Your task to perform on an android device: Go to Reddit.com Image 0: 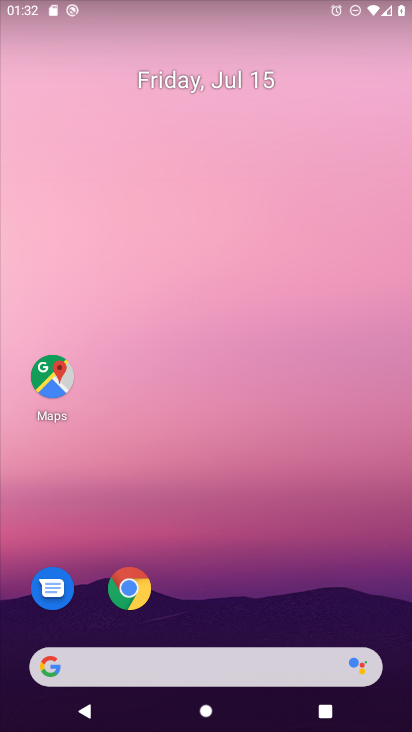
Step 0: click (133, 593)
Your task to perform on an android device: Go to Reddit.com Image 1: 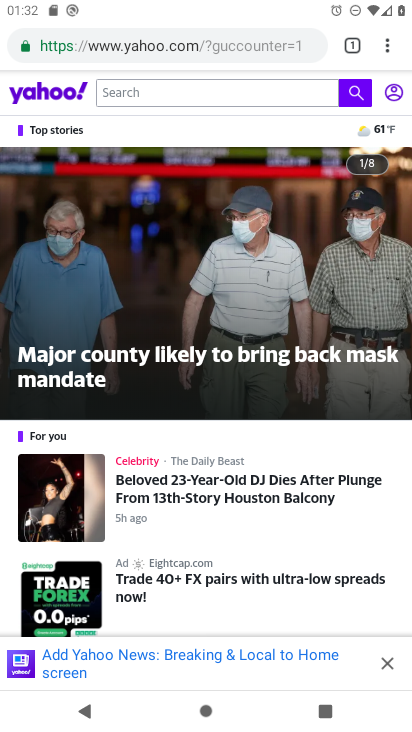
Step 1: click (308, 46)
Your task to perform on an android device: Go to Reddit.com Image 2: 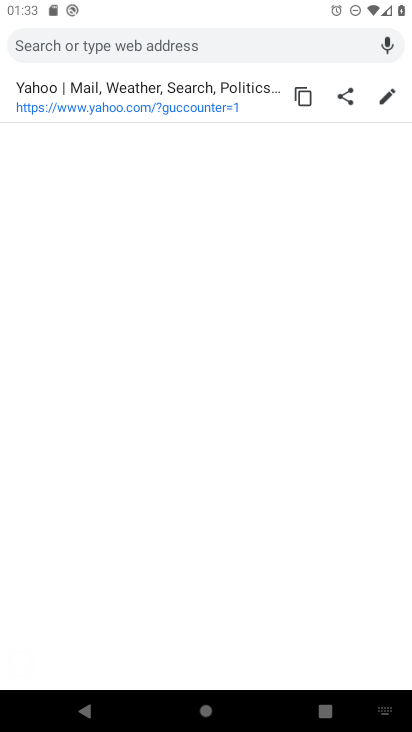
Step 2: type "Reddit.com"
Your task to perform on an android device: Go to Reddit.com Image 3: 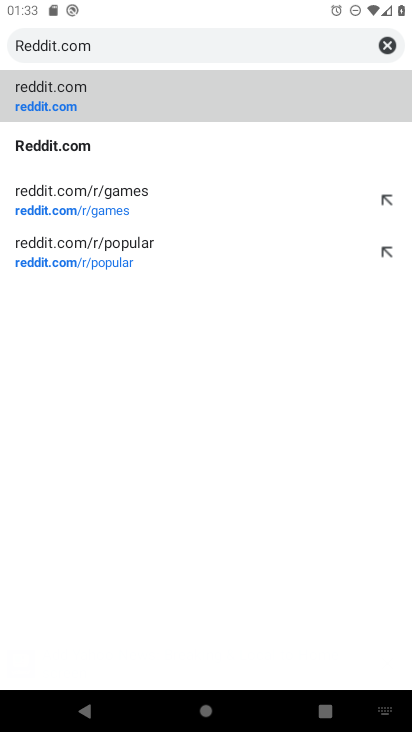
Step 3: click (66, 101)
Your task to perform on an android device: Go to Reddit.com Image 4: 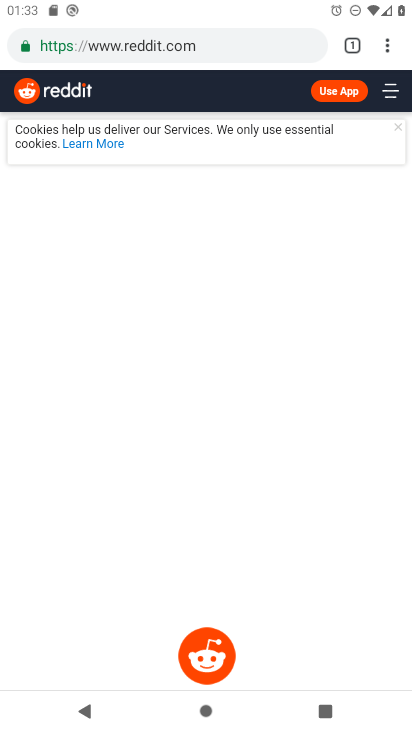
Step 4: task complete